Your task to perform on an android device: Go to CNN.com Image 0: 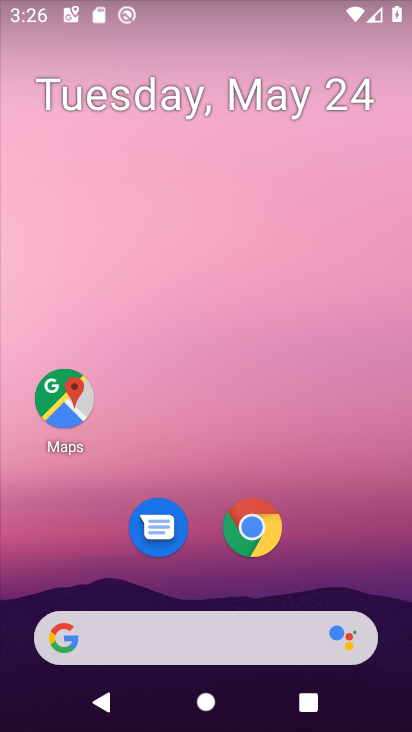
Step 0: click (247, 529)
Your task to perform on an android device: Go to CNN.com Image 1: 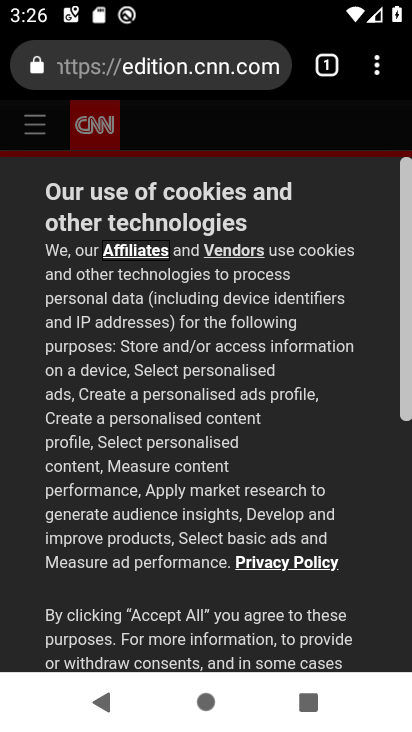
Step 1: task complete